Your task to perform on an android device: Open Youtube and go to "Your channel" Image 0: 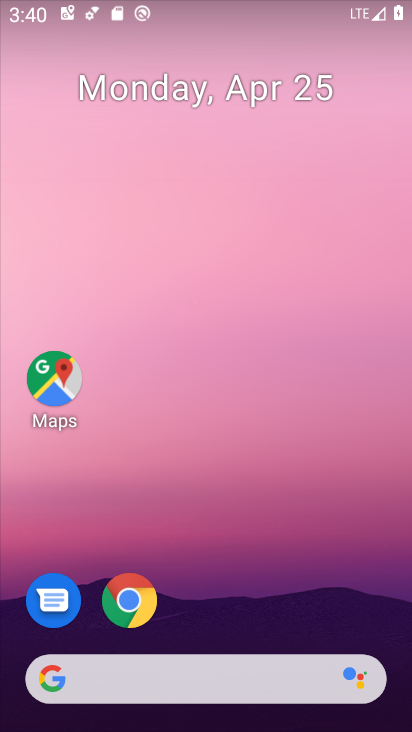
Step 0: drag from (264, 464) to (226, 42)
Your task to perform on an android device: Open Youtube and go to "Your channel" Image 1: 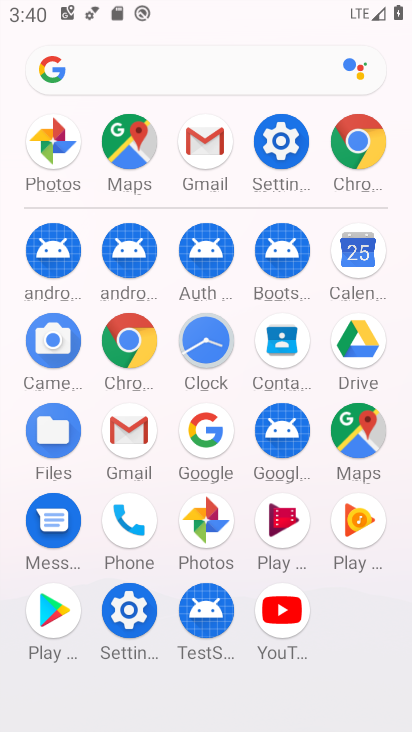
Step 1: drag from (2, 562) to (10, 292)
Your task to perform on an android device: Open Youtube and go to "Your channel" Image 2: 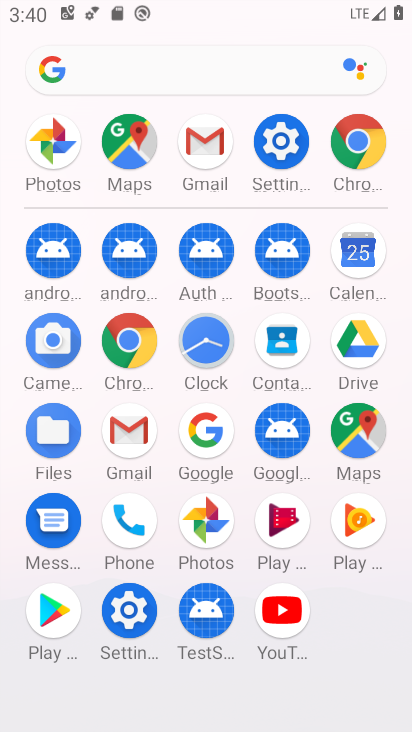
Step 2: click (280, 611)
Your task to perform on an android device: Open Youtube and go to "Your channel" Image 3: 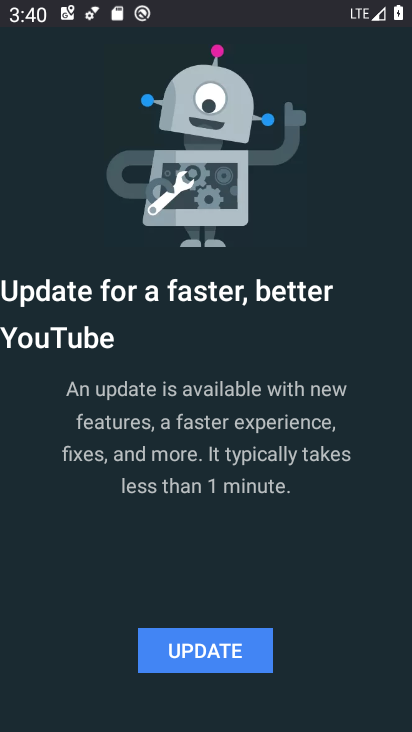
Step 3: click (250, 621)
Your task to perform on an android device: Open Youtube and go to "Your channel" Image 4: 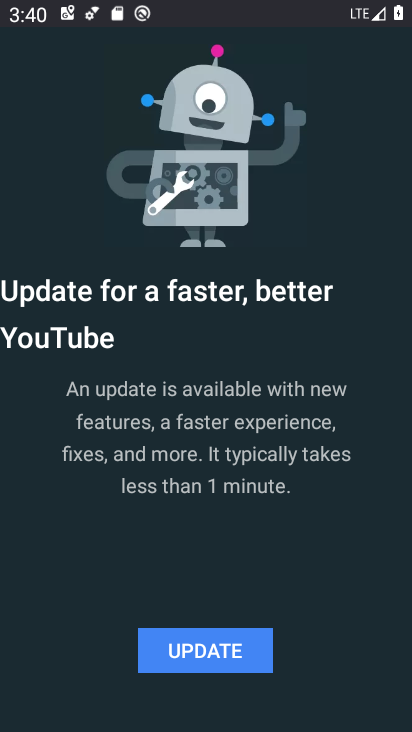
Step 4: click (234, 639)
Your task to perform on an android device: Open Youtube and go to "Your channel" Image 5: 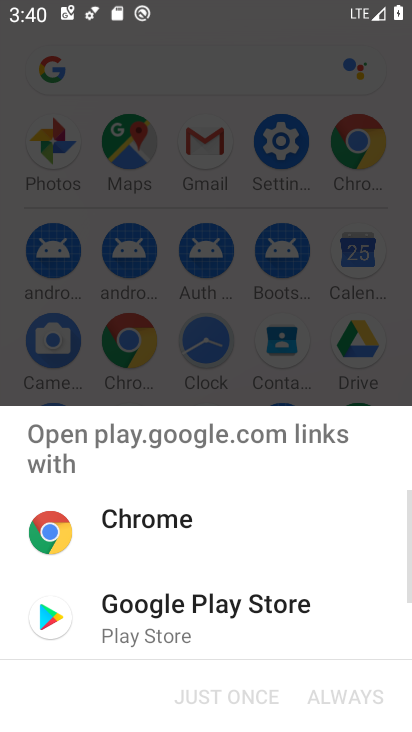
Step 5: click (172, 619)
Your task to perform on an android device: Open Youtube and go to "Your channel" Image 6: 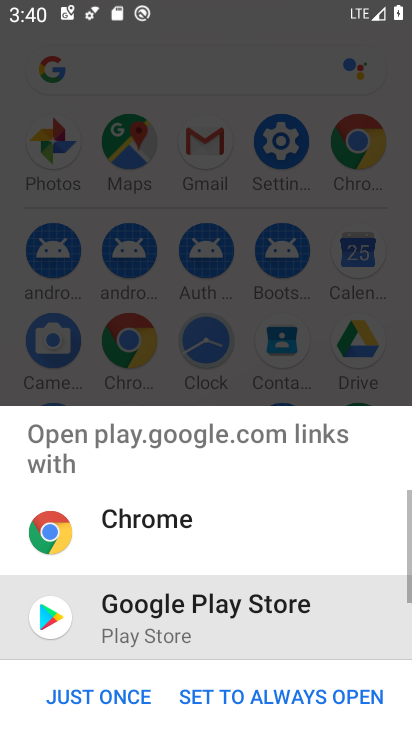
Step 6: click (103, 691)
Your task to perform on an android device: Open Youtube and go to "Your channel" Image 7: 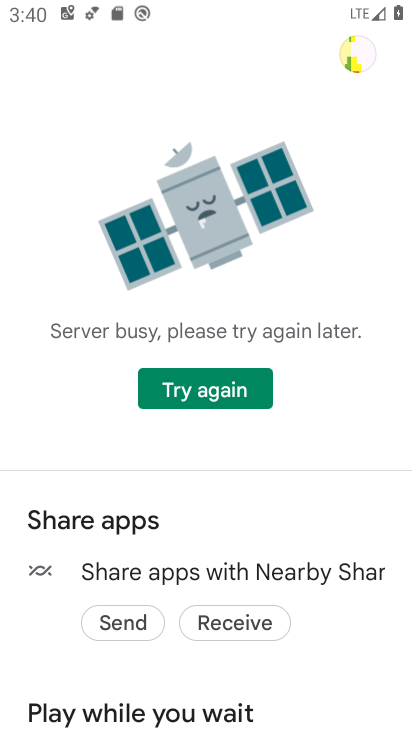
Step 7: task complete